Your task to perform on an android device: change the upload size in google photos Image 0: 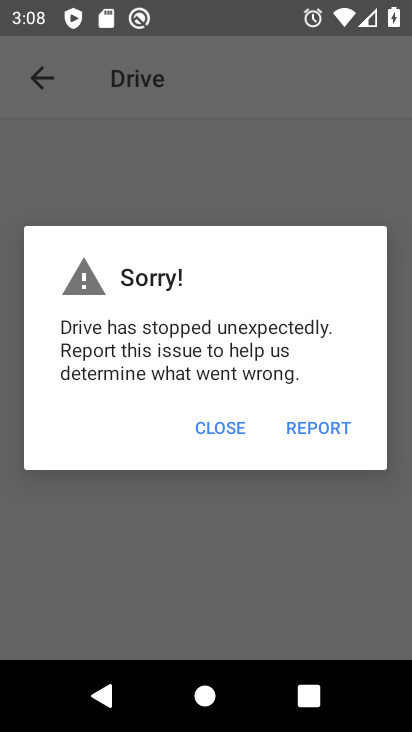
Step 0: click (249, 487)
Your task to perform on an android device: change the upload size in google photos Image 1: 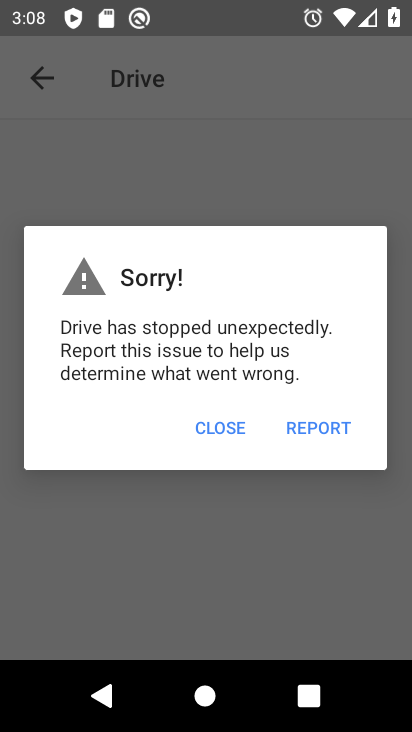
Step 1: press home button
Your task to perform on an android device: change the upload size in google photos Image 2: 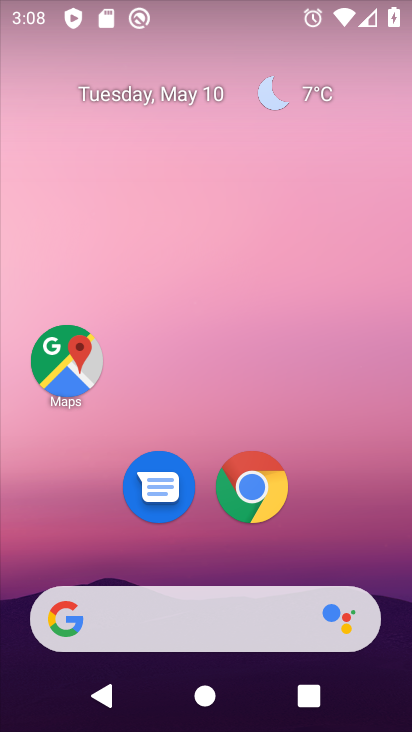
Step 2: drag from (360, 476) to (369, 64)
Your task to perform on an android device: change the upload size in google photos Image 3: 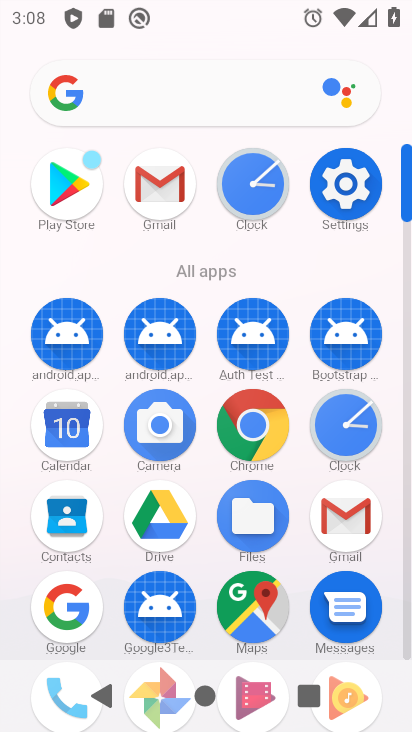
Step 3: drag from (201, 547) to (227, 280)
Your task to perform on an android device: change the upload size in google photos Image 4: 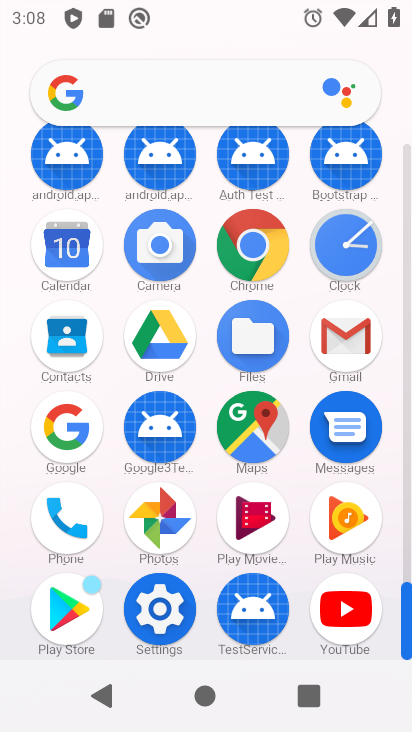
Step 4: click (165, 517)
Your task to perform on an android device: change the upload size in google photos Image 5: 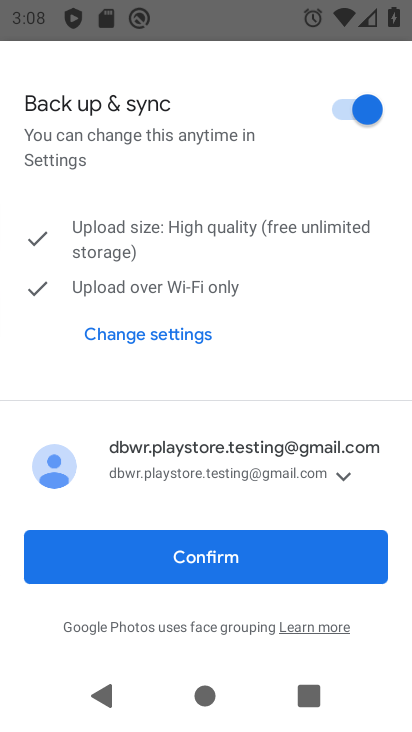
Step 5: click (224, 558)
Your task to perform on an android device: change the upload size in google photos Image 6: 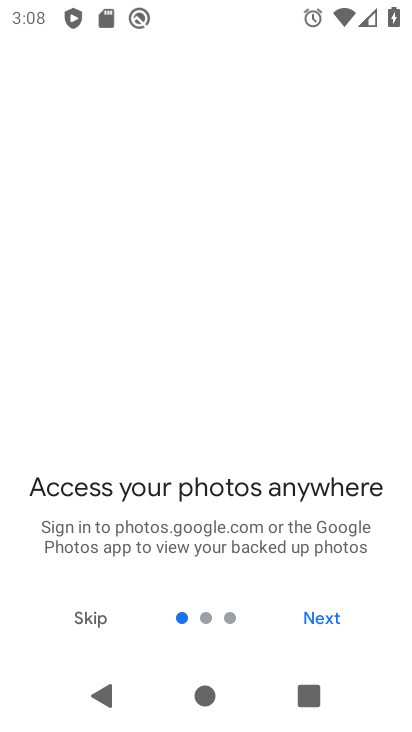
Step 6: click (308, 615)
Your task to perform on an android device: change the upload size in google photos Image 7: 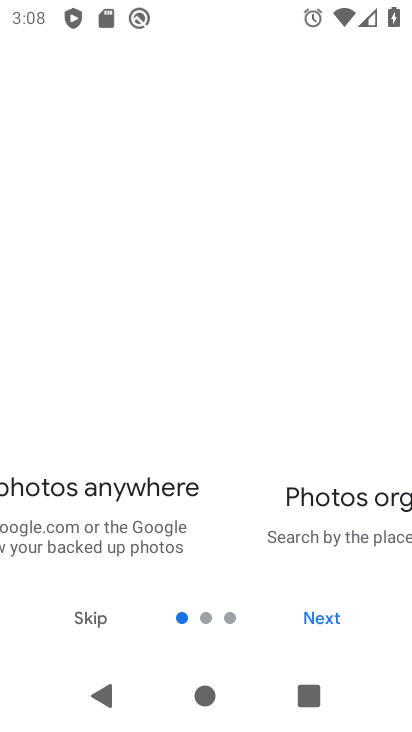
Step 7: click (308, 615)
Your task to perform on an android device: change the upload size in google photos Image 8: 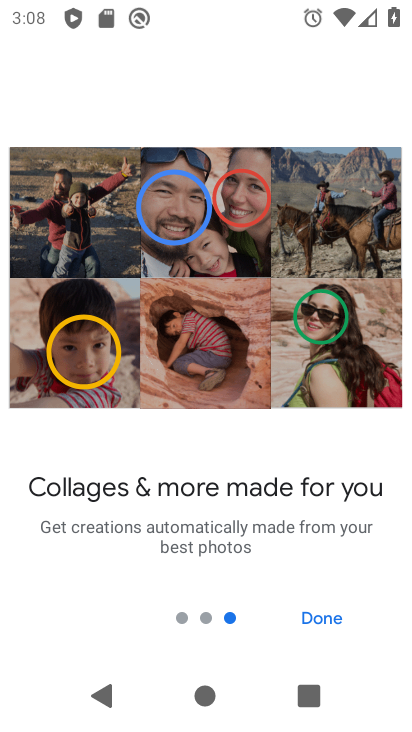
Step 8: click (308, 615)
Your task to perform on an android device: change the upload size in google photos Image 9: 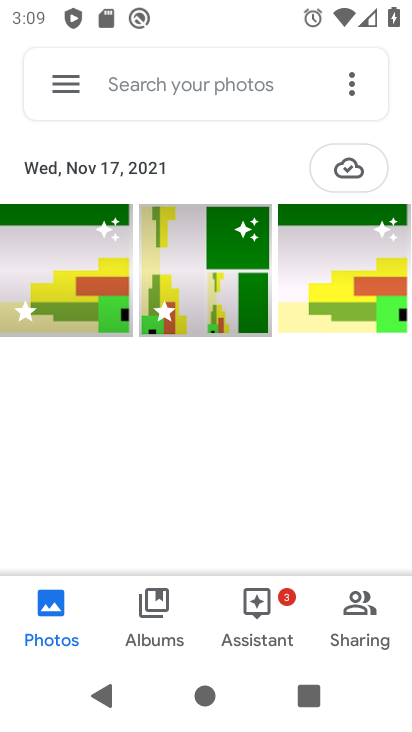
Step 9: click (352, 72)
Your task to perform on an android device: change the upload size in google photos Image 10: 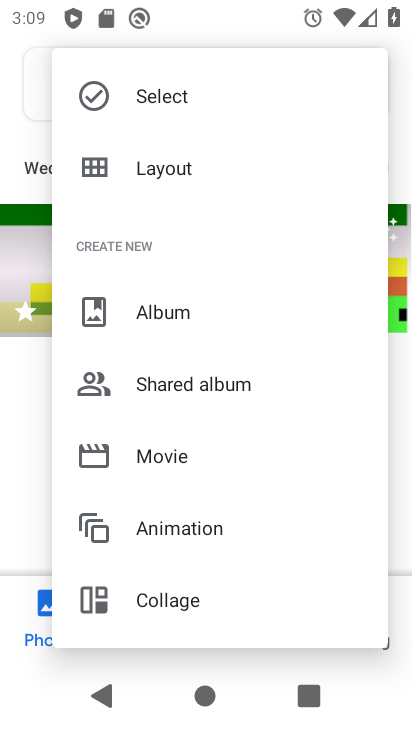
Step 10: click (32, 84)
Your task to perform on an android device: change the upload size in google photos Image 11: 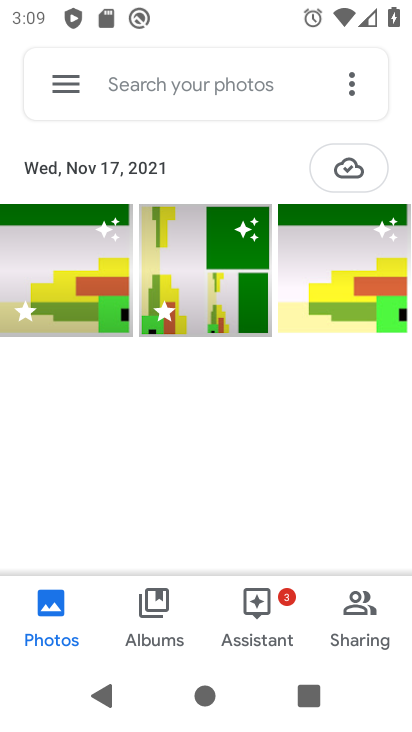
Step 11: click (52, 89)
Your task to perform on an android device: change the upload size in google photos Image 12: 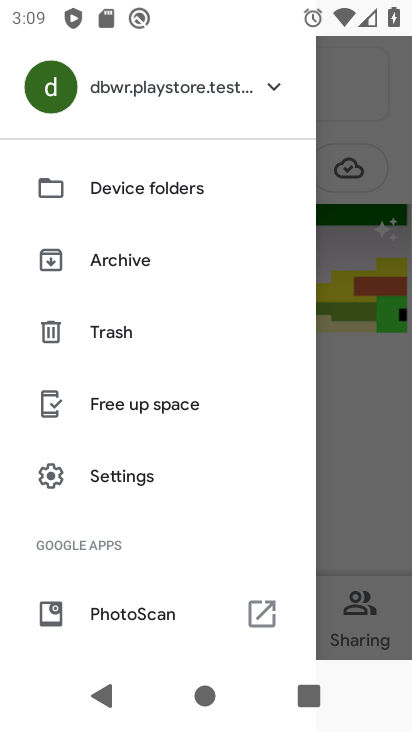
Step 12: click (146, 473)
Your task to perform on an android device: change the upload size in google photos Image 13: 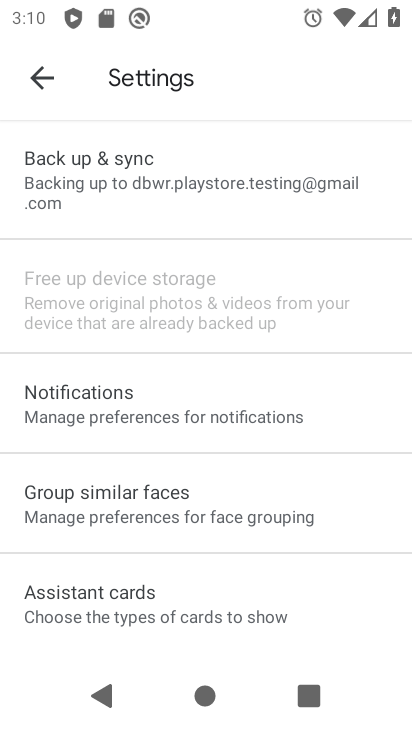
Step 13: drag from (232, 577) to (229, 654)
Your task to perform on an android device: change the upload size in google photos Image 14: 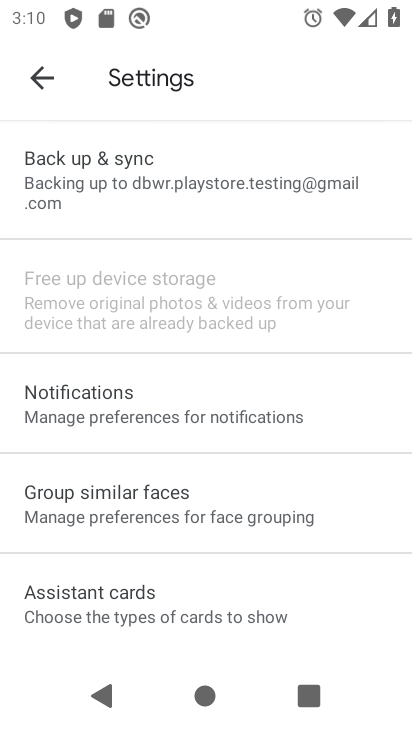
Step 14: click (178, 184)
Your task to perform on an android device: change the upload size in google photos Image 15: 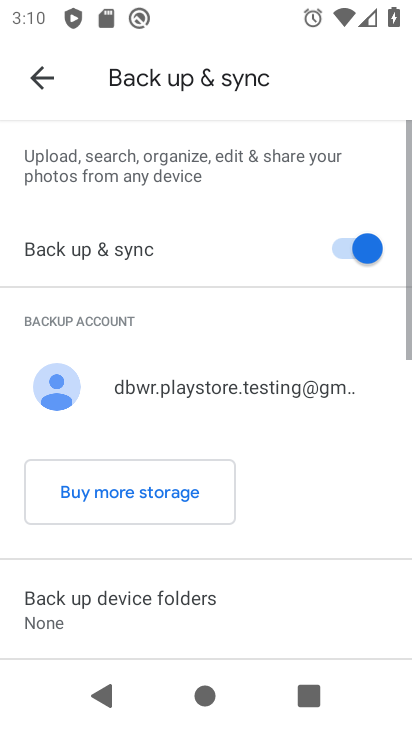
Step 15: drag from (221, 573) to (266, 130)
Your task to perform on an android device: change the upload size in google photos Image 16: 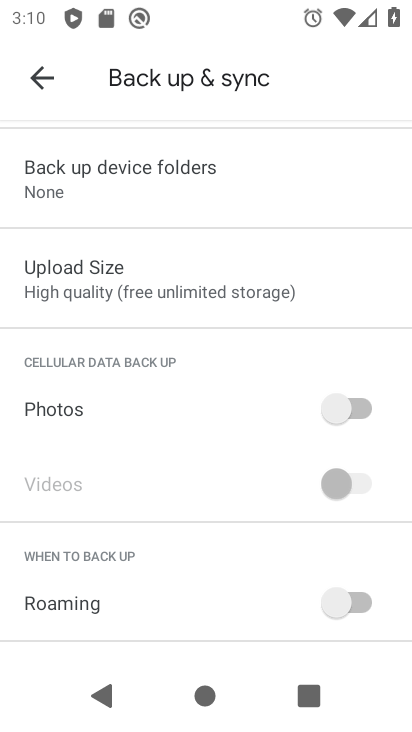
Step 16: click (176, 267)
Your task to perform on an android device: change the upload size in google photos Image 17: 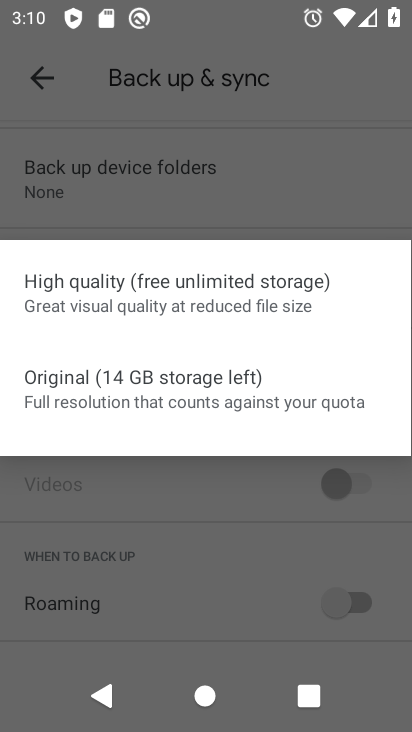
Step 17: click (164, 394)
Your task to perform on an android device: change the upload size in google photos Image 18: 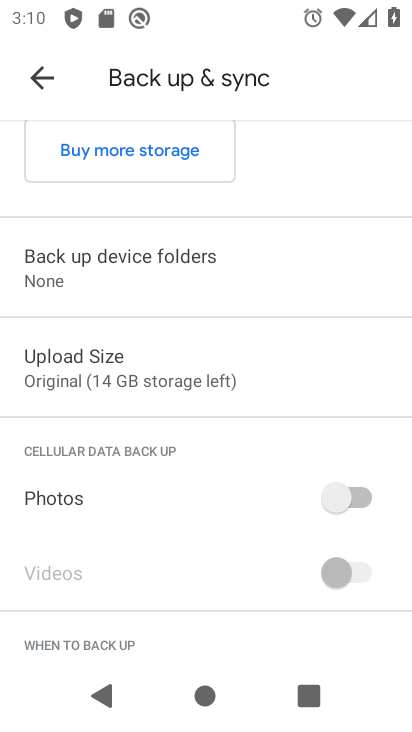
Step 18: task complete